Your task to perform on an android device: open wifi settings Image 0: 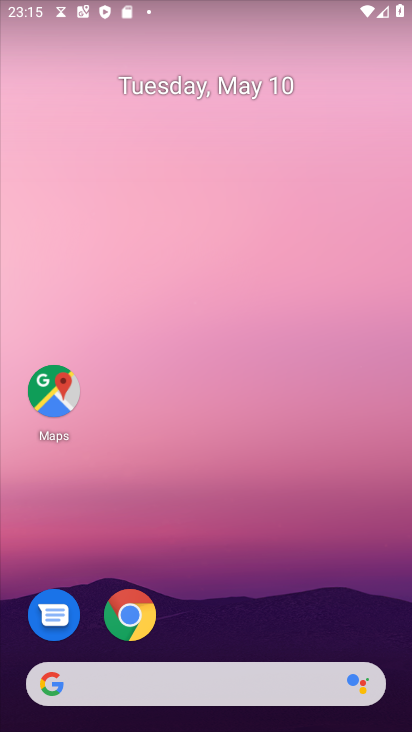
Step 0: drag from (226, 599) to (231, 191)
Your task to perform on an android device: open wifi settings Image 1: 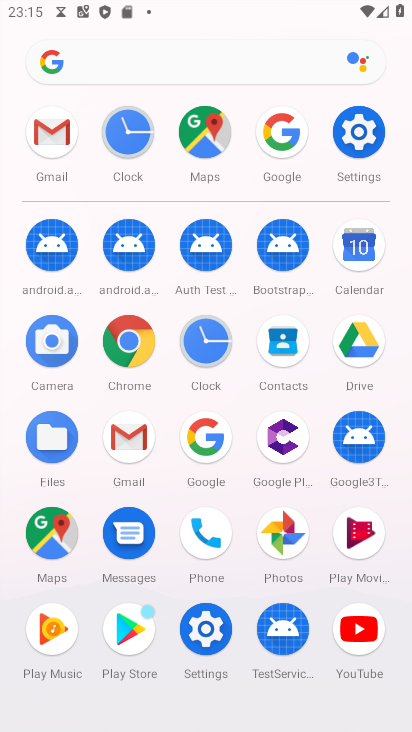
Step 1: click (357, 130)
Your task to perform on an android device: open wifi settings Image 2: 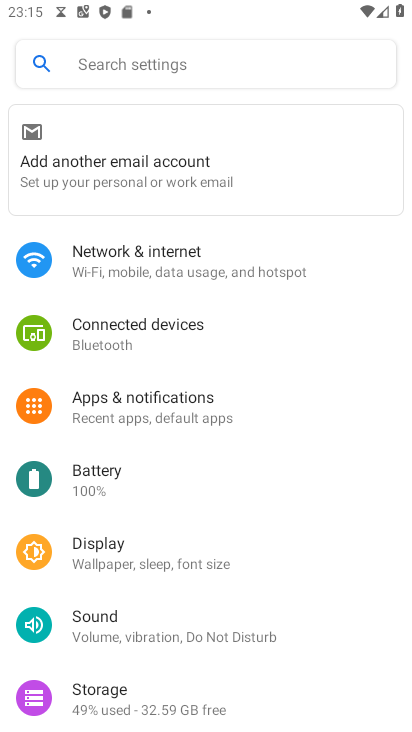
Step 2: click (147, 246)
Your task to perform on an android device: open wifi settings Image 3: 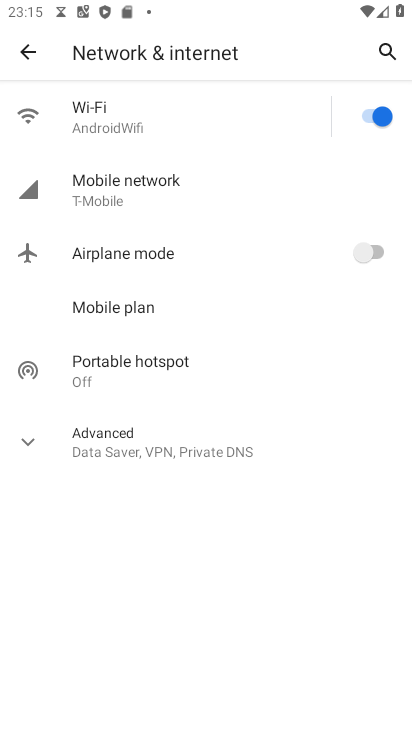
Step 3: click (99, 127)
Your task to perform on an android device: open wifi settings Image 4: 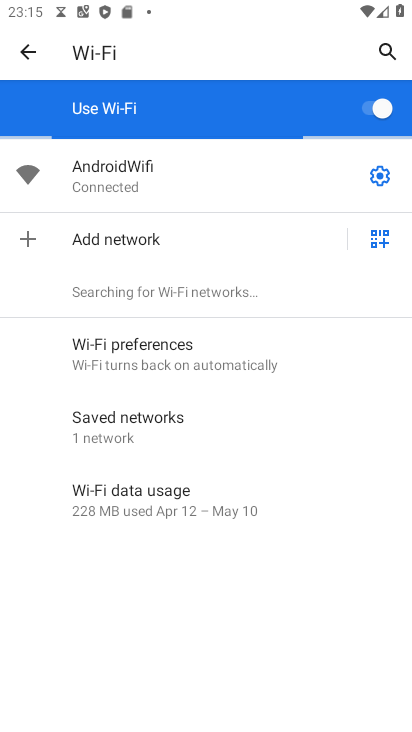
Step 4: click (382, 176)
Your task to perform on an android device: open wifi settings Image 5: 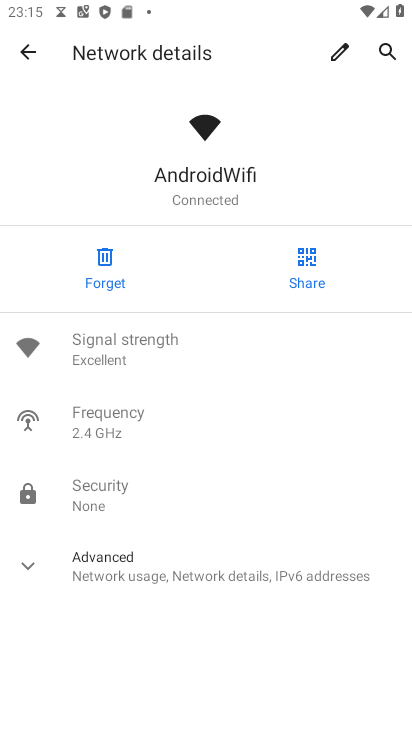
Step 5: task complete